Your task to perform on an android device: Open the calendar app, open the side menu, and click the "Day" option Image 0: 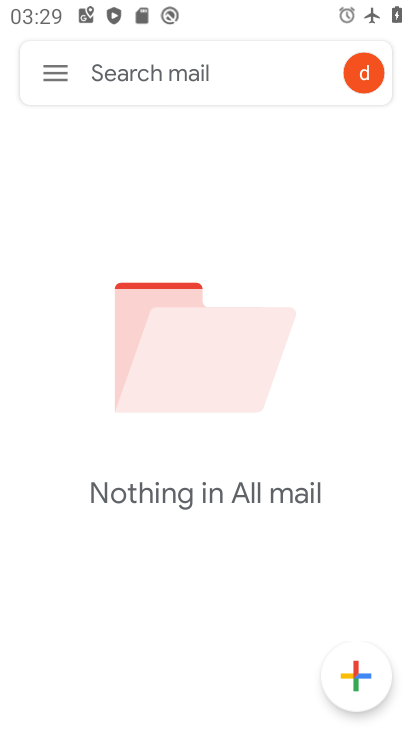
Step 0: press home button
Your task to perform on an android device: Open the calendar app, open the side menu, and click the "Day" option Image 1: 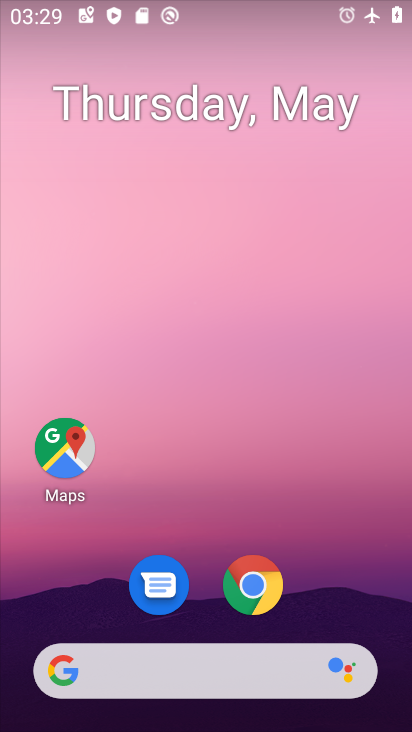
Step 1: drag from (266, 472) to (253, 0)
Your task to perform on an android device: Open the calendar app, open the side menu, and click the "Day" option Image 2: 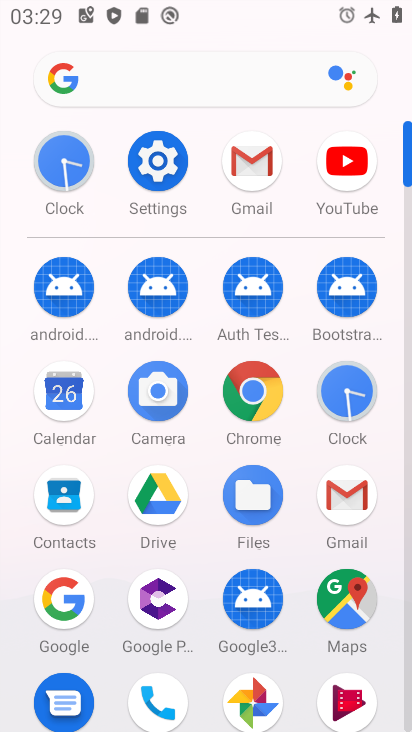
Step 2: click (59, 394)
Your task to perform on an android device: Open the calendar app, open the side menu, and click the "Day" option Image 3: 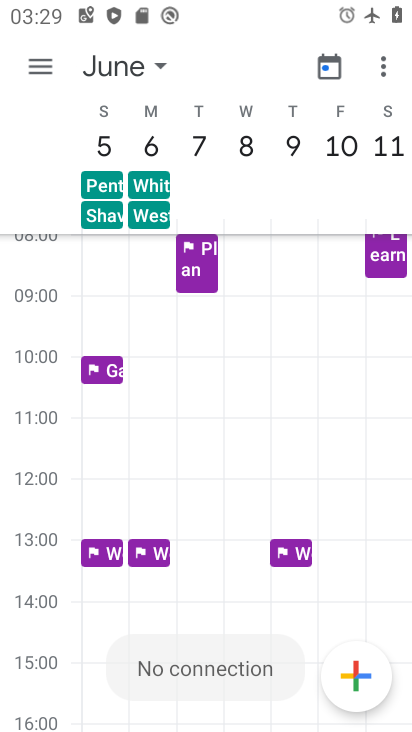
Step 3: click (30, 55)
Your task to perform on an android device: Open the calendar app, open the side menu, and click the "Day" option Image 4: 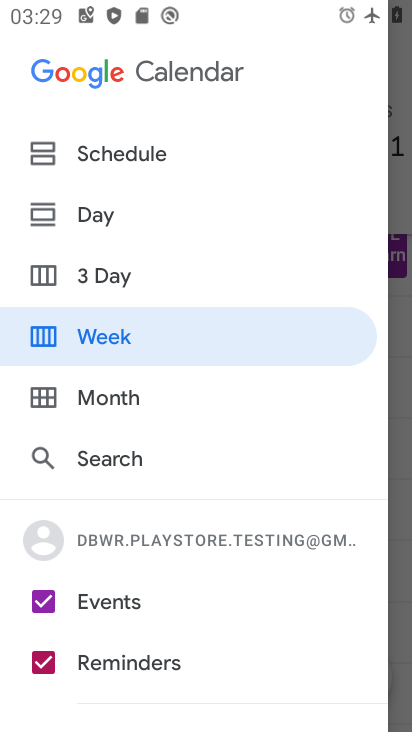
Step 4: click (44, 217)
Your task to perform on an android device: Open the calendar app, open the side menu, and click the "Day" option Image 5: 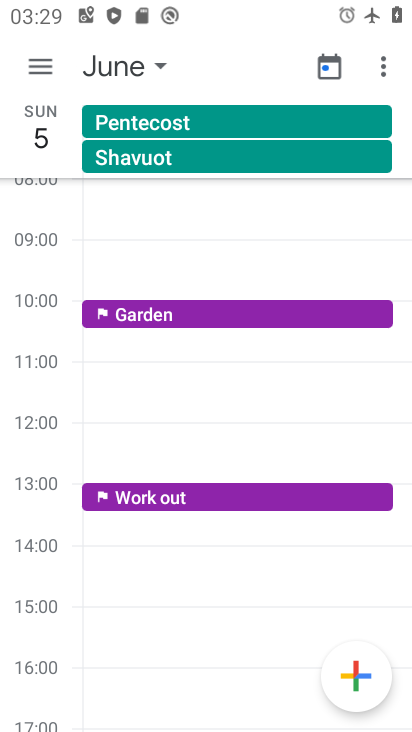
Step 5: task complete